Your task to perform on an android device: see sites visited before in the chrome app Image 0: 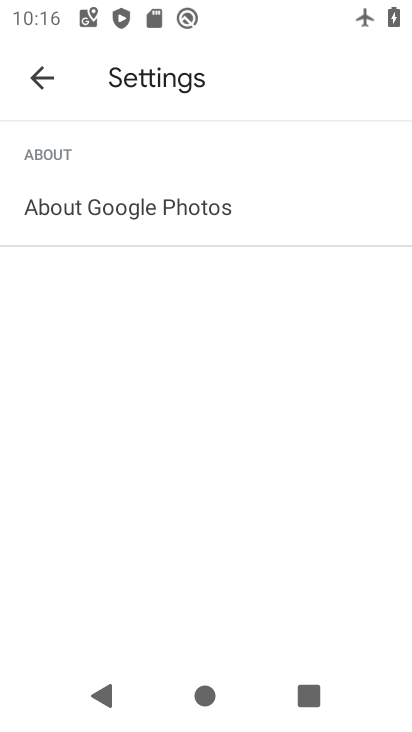
Step 0: press home button
Your task to perform on an android device: see sites visited before in the chrome app Image 1: 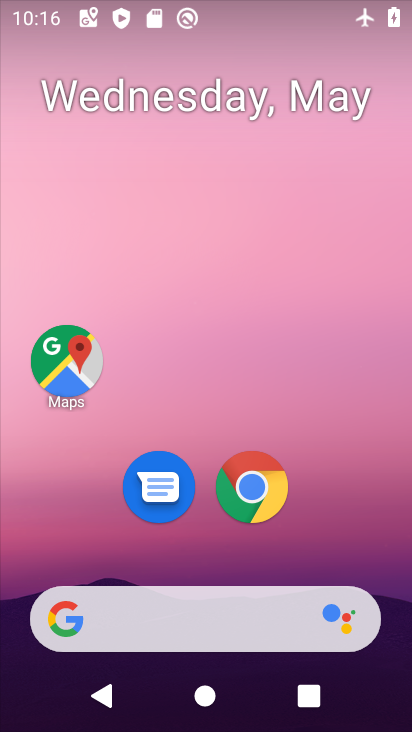
Step 1: drag from (245, 582) to (49, 730)
Your task to perform on an android device: see sites visited before in the chrome app Image 2: 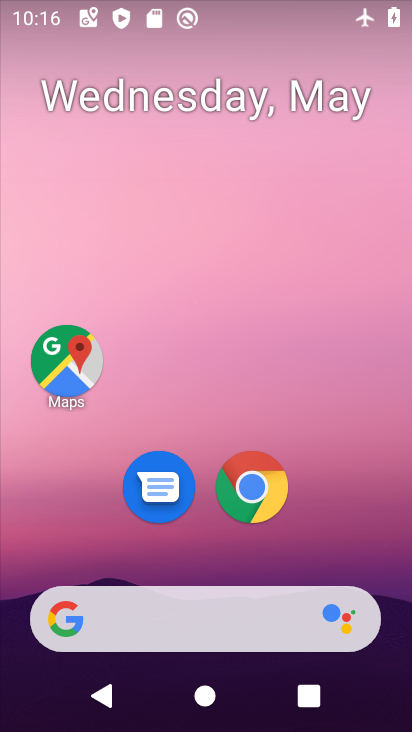
Step 2: click (260, 501)
Your task to perform on an android device: see sites visited before in the chrome app Image 3: 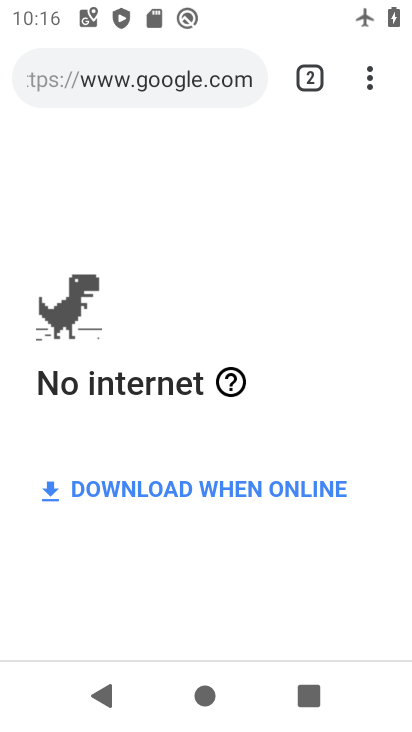
Step 3: click (323, 76)
Your task to perform on an android device: see sites visited before in the chrome app Image 4: 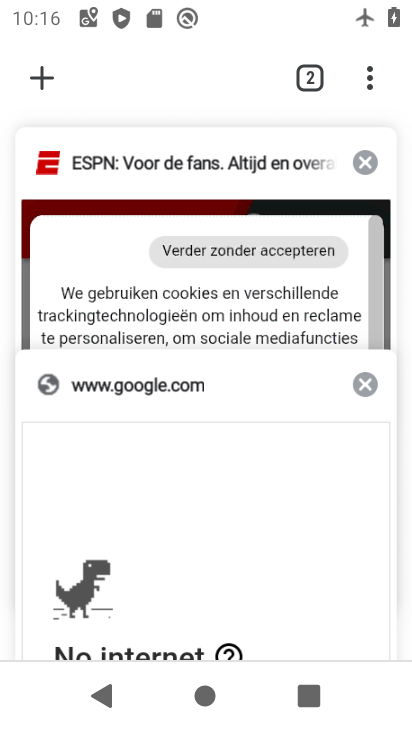
Step 4: task complete